Your task to perform on an android device: Play the last video I watched on Youtube Image 0: 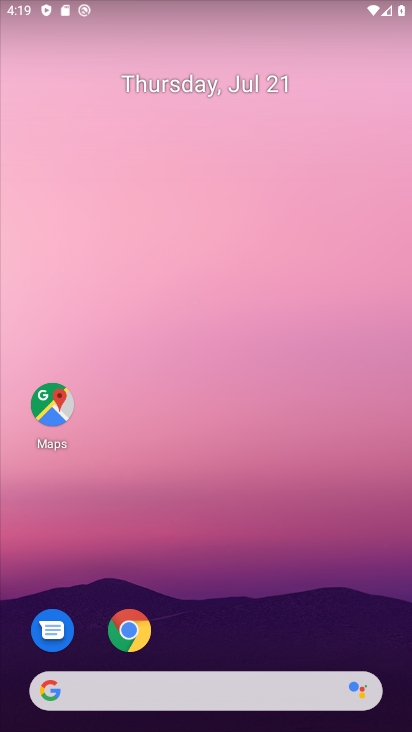
Step 0: drag from (321, 631) to (263, 264)
Your task to perform on an android device: Play the last video I watched on Youtube Image 1: 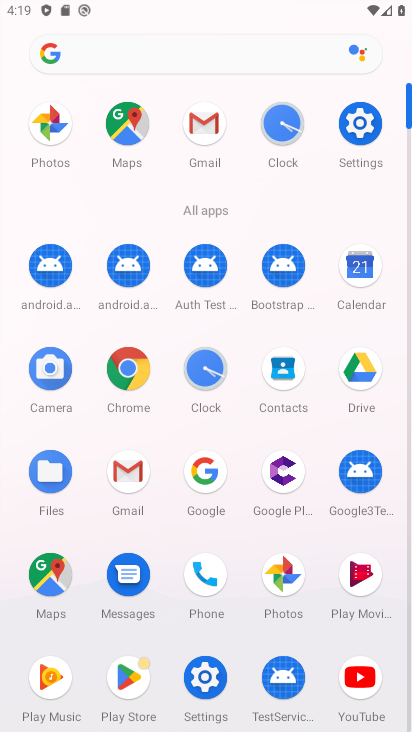
Step 1: click (357, 672)
Your task to perform on an android device: Play the last video I watched on Youtube Image 2: 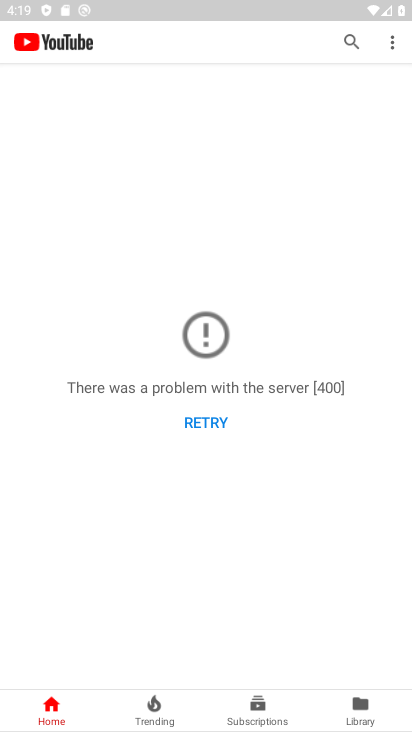
Step 2: click (361, 701)
Your task to perform on an android device: Play the last video I watched on Youtube Image 3: 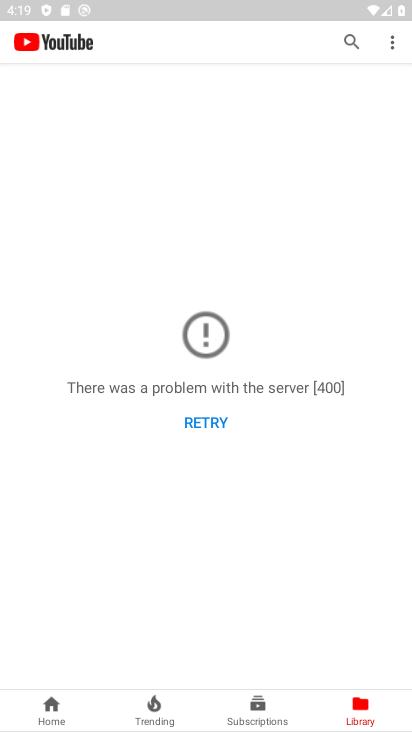
Step 3: task complete